Your task to perform on an android device: install app "Duolingo: language lessons" Image 0: 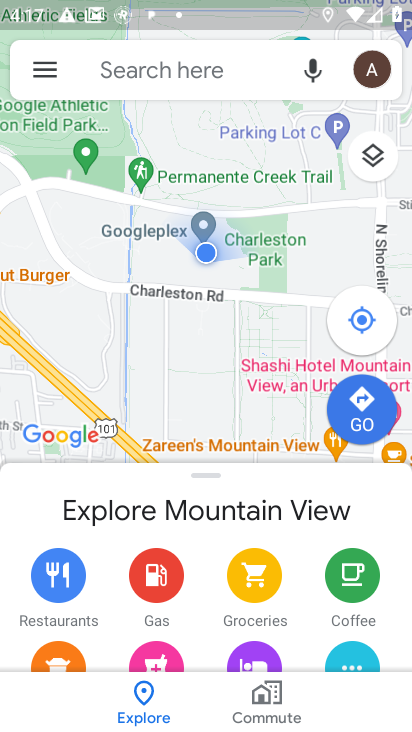
Step 0: press home button
Your task to perform on an android device: install app "Duolingo: language lessons" Image 1: 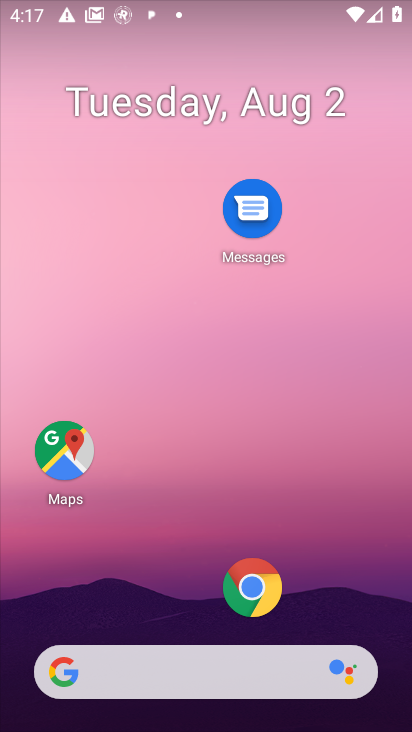
Step 1: drag from (134, 613) to (144, 122)
Your task to perform on an android device: install app "Duolingo: language lessons" Image 2: 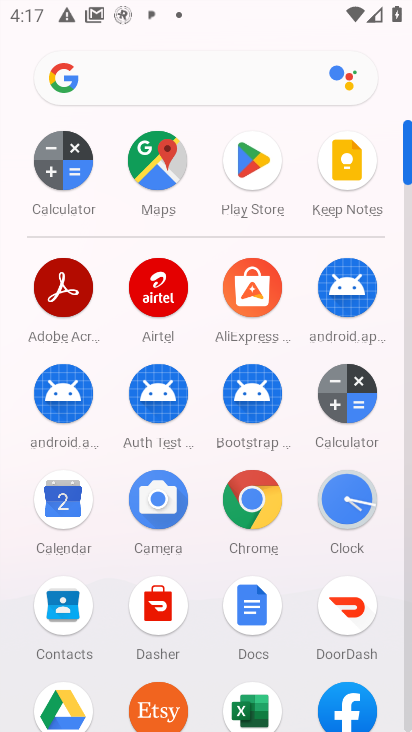
Step 2: click (221, 157)
Your task to perform on an android device: install app "Duolingo: language lessons" Image 3: 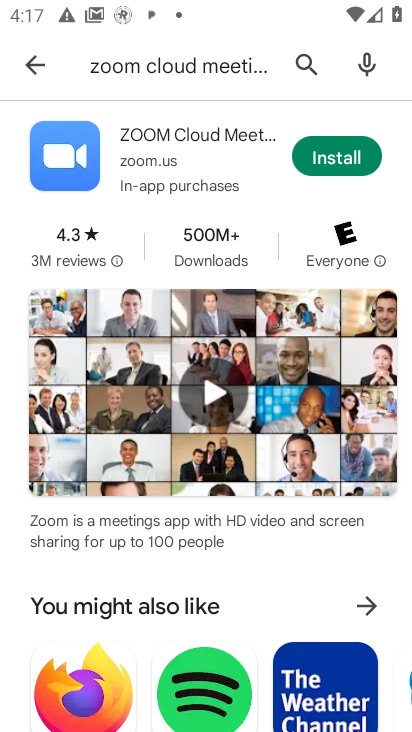
Step 3: click (304, 64)
Your task to perform on an android device: install app "Duolingo: language lessons" Image 4: 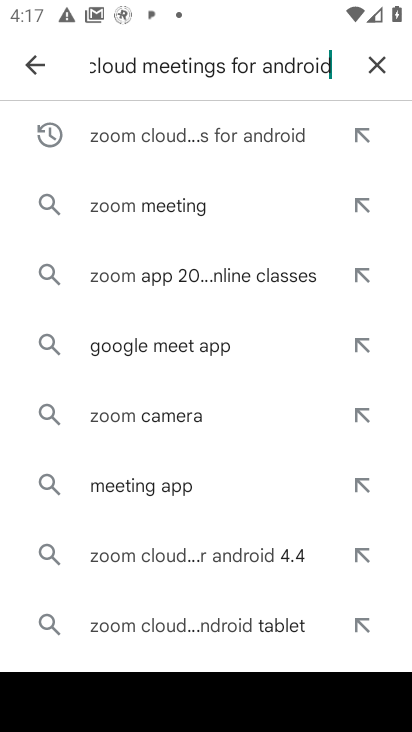
Step 4: click (371, 63)
Your task to perform on an android device: install app "Duolingo: language lessons" Image 5: 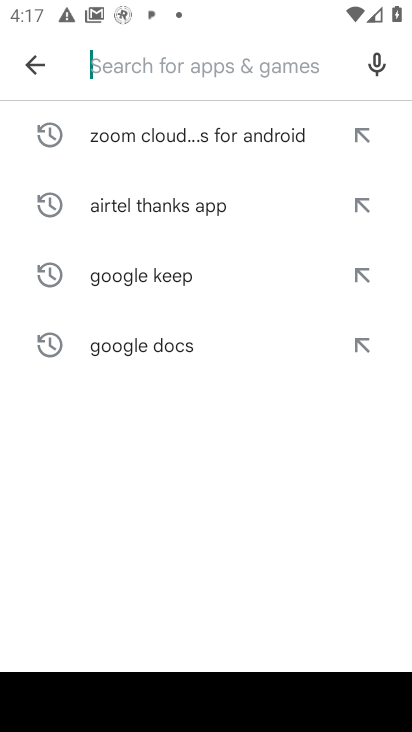
Step 5: type "Duolingo: language lessons"
Your task to perform on an android device: install app "Duolingo: language lessons" Image 6: 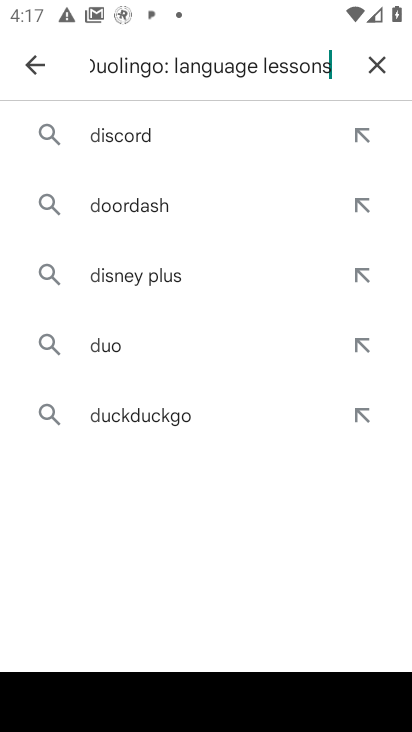
Step 6: type ""
Your task to perform on an android device: install app "Duolingo: language lessons" Image 7: 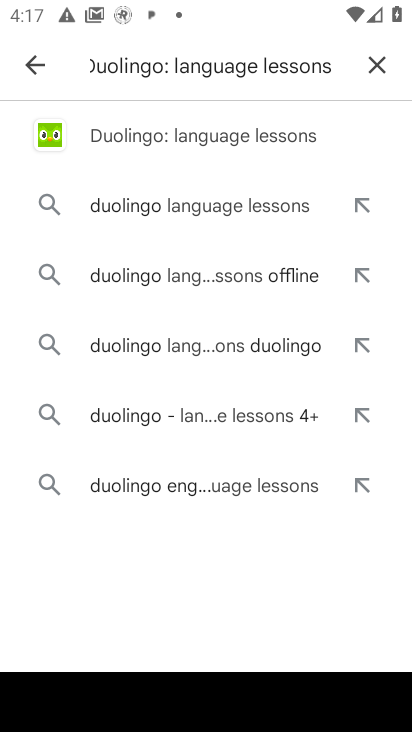
Step 7: click (166, 132)
Your task to perform on an android device: install app "Duolingo: language lessons" Image 8: 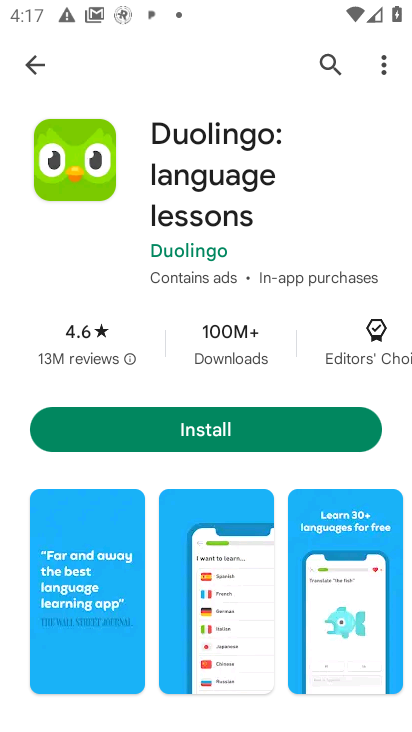
Step 8: click (230, 416)
Your task to perform on an android device: install app "Duolingo: language lessons" Image 9: 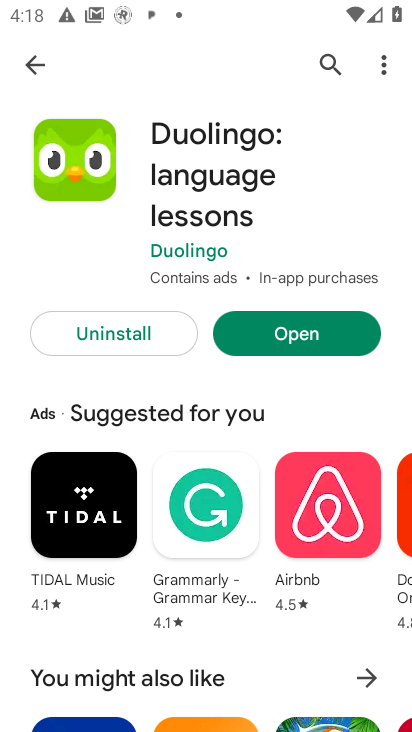
Step 9: task complete